Your task to perform on an android device: delete a single message in the gmail app Image 0: 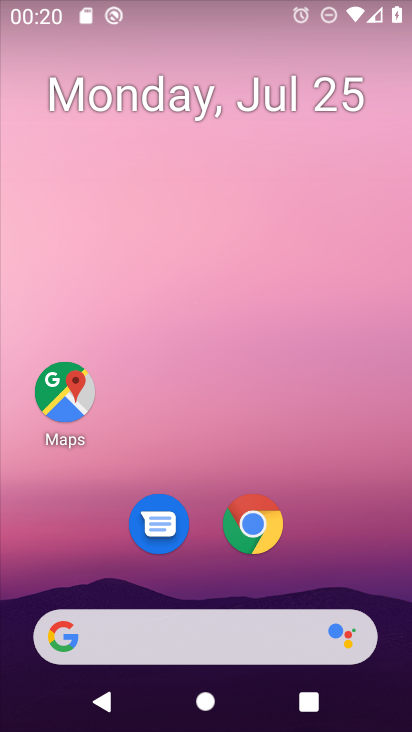
Step 0: press home button
Your task to perform on an android device: delete a single message in the gmail app Image 1: 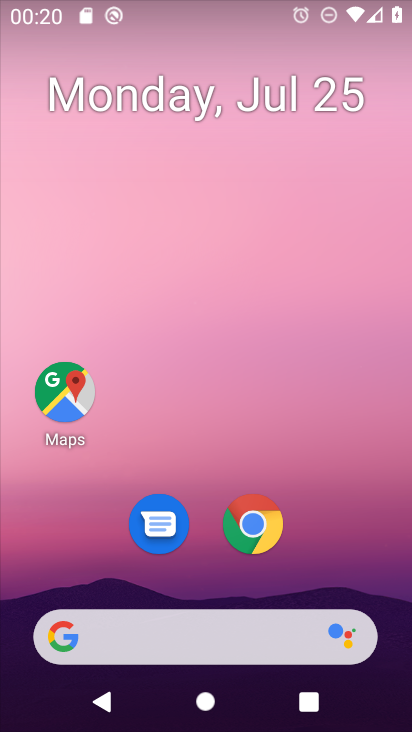
Step 1: drag from (203, 628) to (366, 73)
Your task to perform on an android device: delete a single message in the gmail app Image 2: 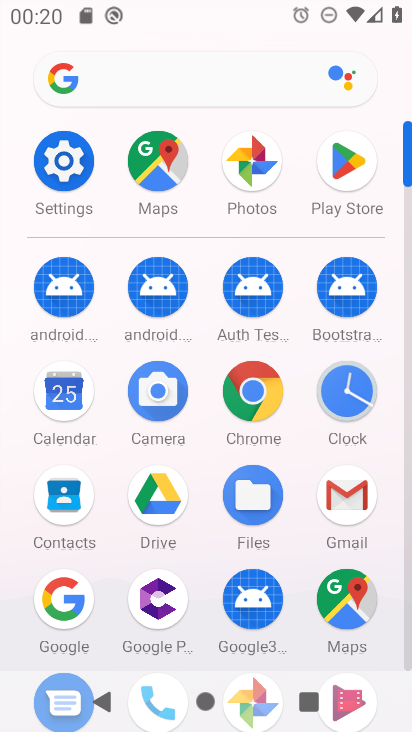
Step 2: click (348, 481)
Your task to perform on an android device: delete a single message in the gmail app Image 3: 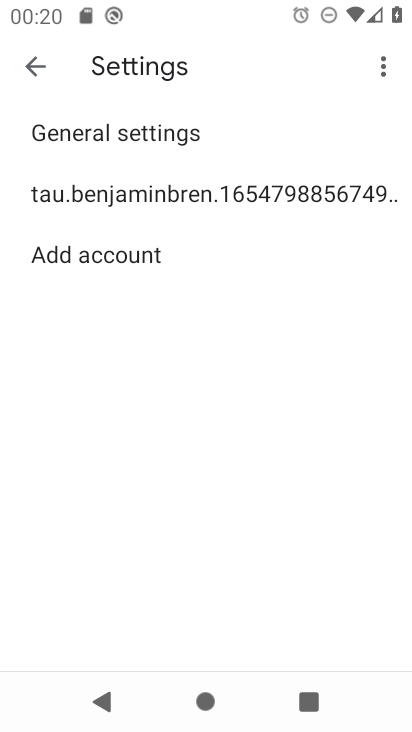
Step 3: click (35, 69)
Your task to perform on an android device: delete a single message in the gmail app Image 4: 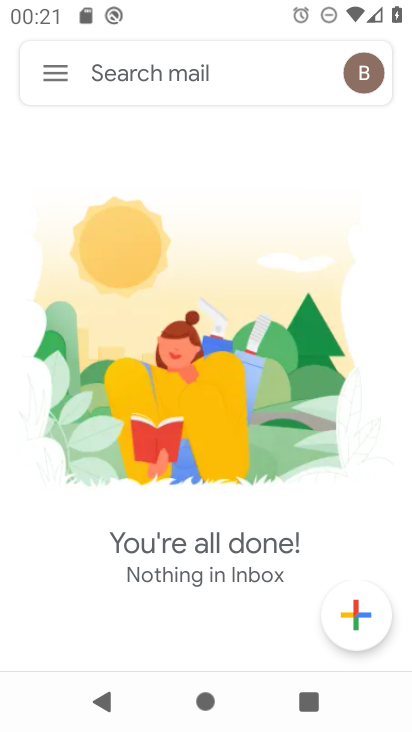
Step 4: task complete